Your task to perform on an android device: turn off sleep mode Image 0: 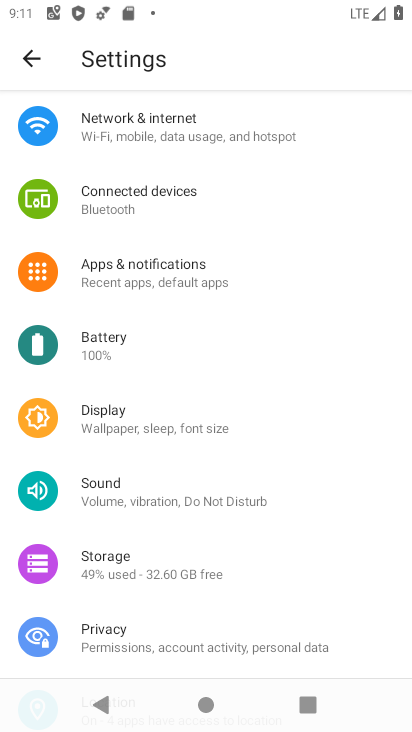
Step 0: drag from (225, 542) to (359, 87)
Your task to perform on an android device: turn off sleep mode Image 1: 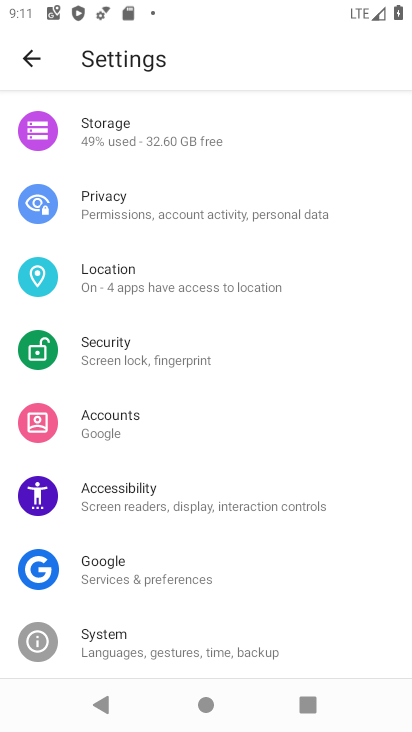
Step 1: task complete